Your task to perform on an android device: turn on data saver in the chrome app Image 0: 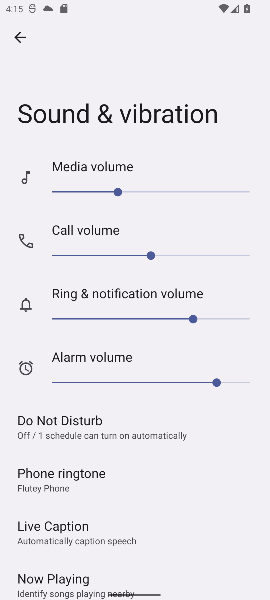
Step 0: press home button
Your task to perform on an android device: turn on data saver in the chrome app Image 1: 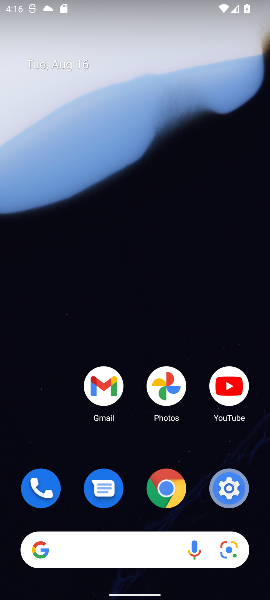
Step 1: drag from (44, 395) to (117, 108)
Your task to perform on an android device: turn on data saver in the chrome app Image 2: 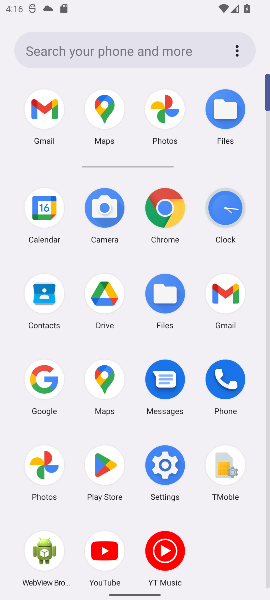
Step 2: click (152, 207)
Your task to perform on an android device: turn on data saver in the chrome app Image 3: 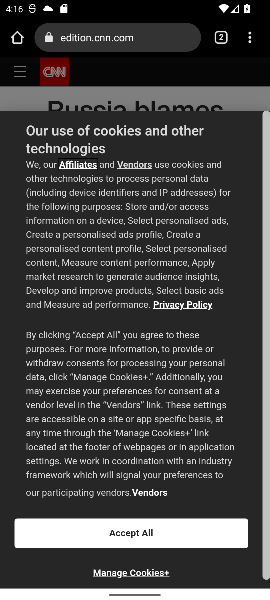
Step 3: task complete